Your task to perform on an android device: change the clock display to analog Image 0: 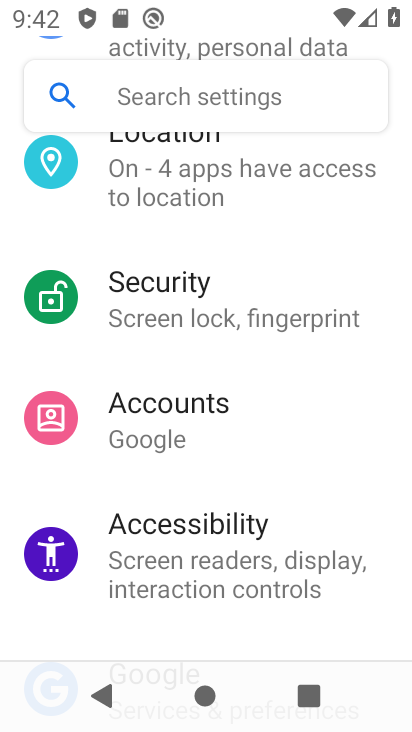
Step 0: press home button
Your task to perform on an android device: change the clock display to analog Image 1: 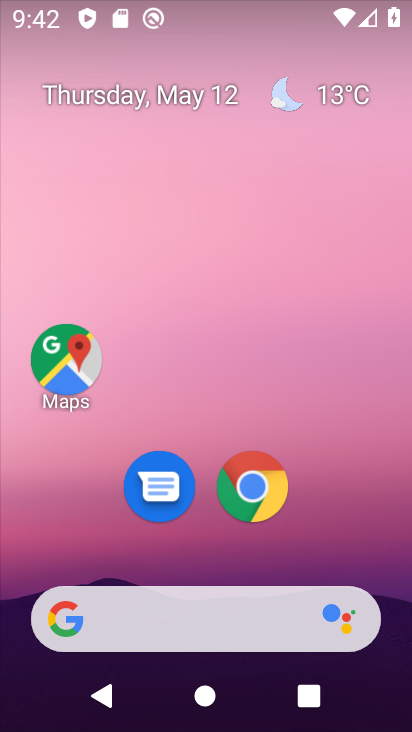
Step 1: drag from (329, 496) to (282, 112)
Your task to perform on an android device: change the clock display to analog Image 2: 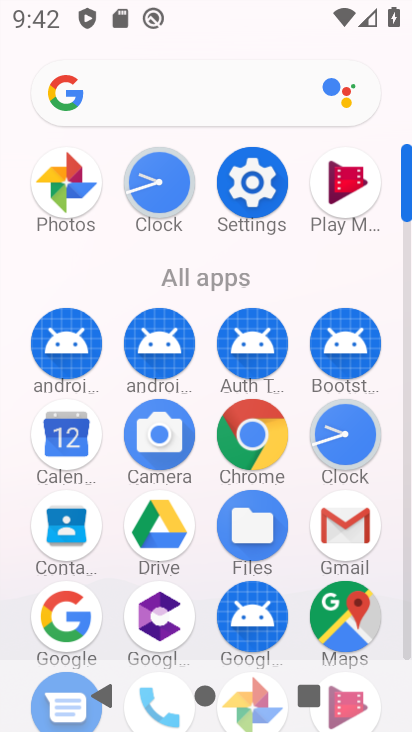
Step 2: click (348, 421)
Your task to perform on an android device: change the clock display to analog Image 3: 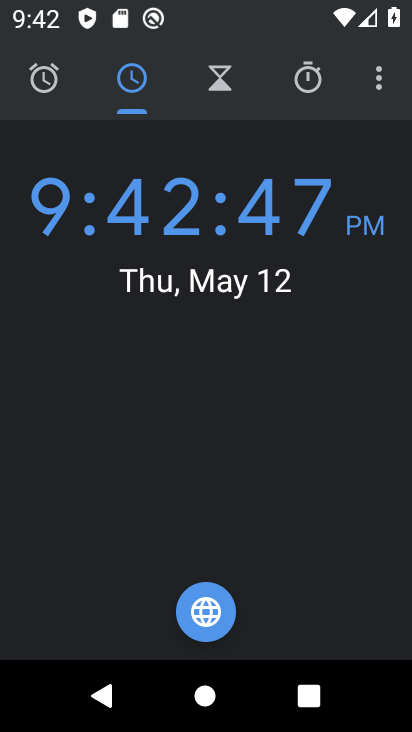
Step 3: click (385, 83)
Your task to perform on an android device: change the clock display to analog Image 4: 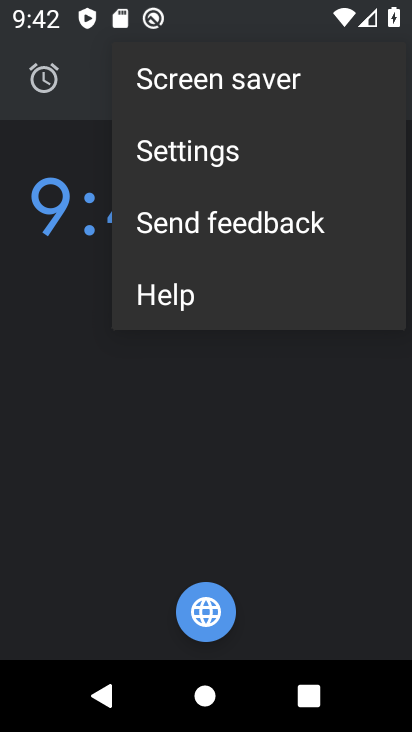
Step 4: click (224, 156)
Your task to perform on an android device: change the clock display to analog Image 5: 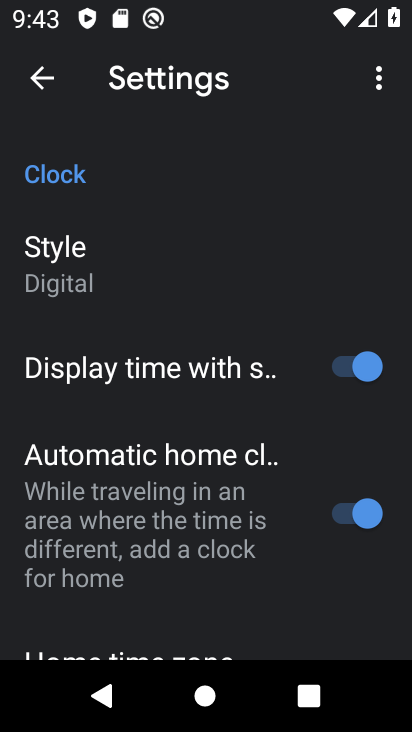
Step 5: click (222, 266)
Your task to perform on an android device: change the clock display to analog Image 6: 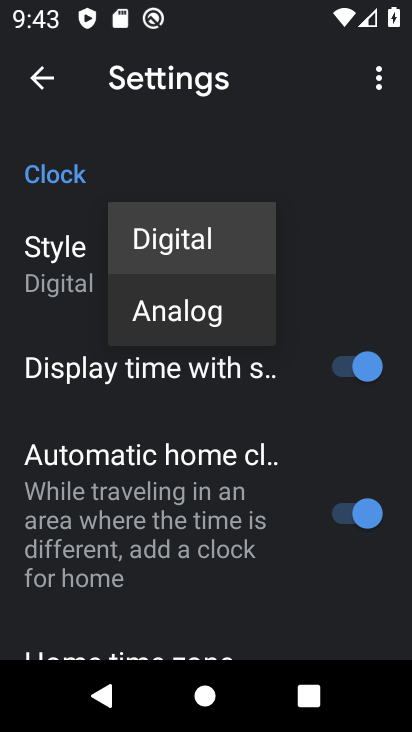
Step 6: click (232, 311)
Your task to perform on an android device: change the clock display to analog Image 7: 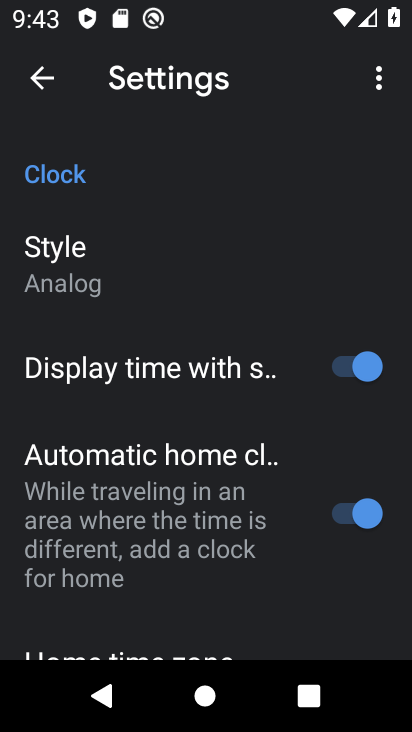
Step 7: task complete